Your task to perform on an android device: turn off sleep mode Image 0: 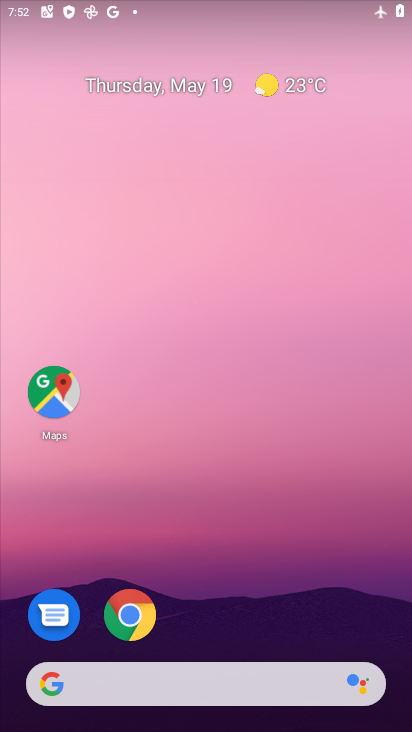
Step 0: drag from (346, 608) to (285, 1)
Your task to perform on an android device: turn off sleep mode Image 1: 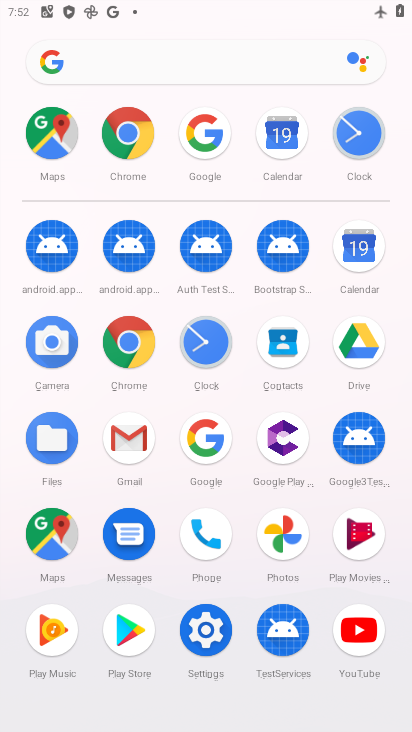
Step 1: click (204, 631)
Your task to perform on an android device: turn off sleep mode Image 2: 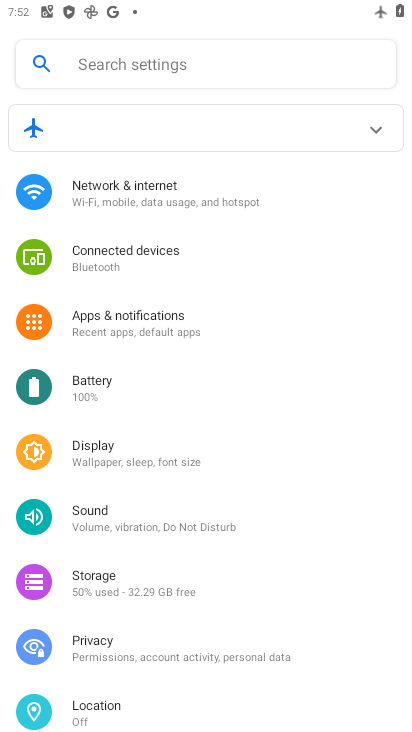
Step 2: task complete